Your task to perform on an android device: Open Yahoo.com Image 0: 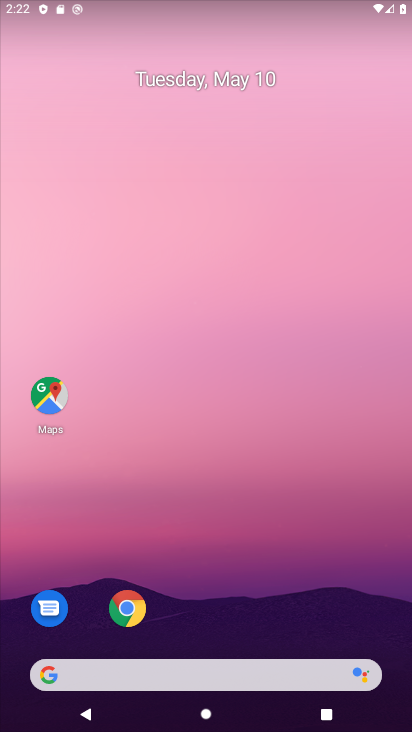
Step 0: click (126, 611)
Your task to perform on an android device: Open Yahoo.com Image 1: 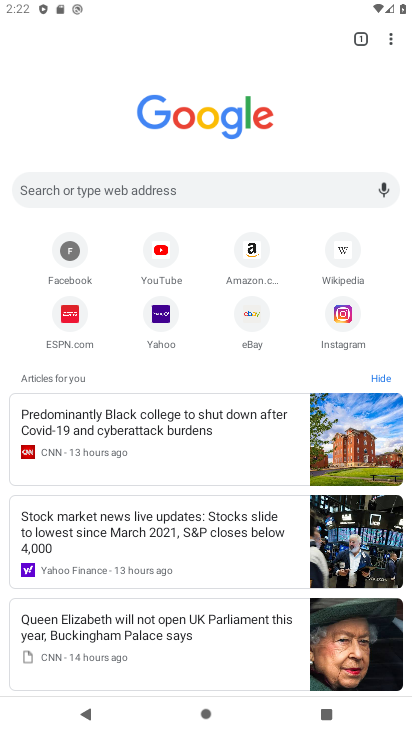
Step 1: click (105, 184)
Your task to perform on an android device: Open Yahoo.com Image 2: 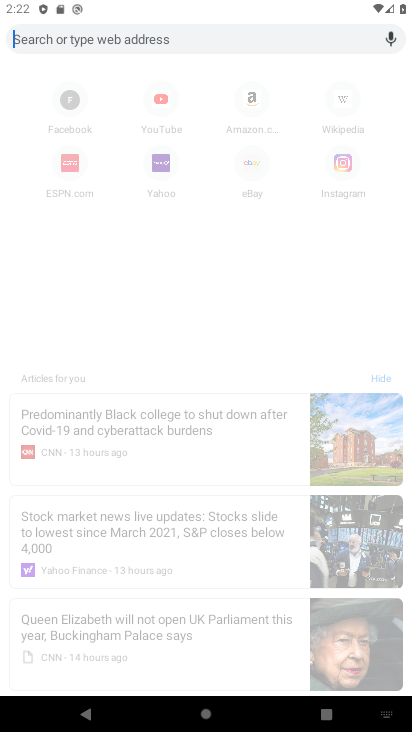
Step 2: type "yahoo.com"
Your task to perform on an android device: Open Yahoo.com Image 3: 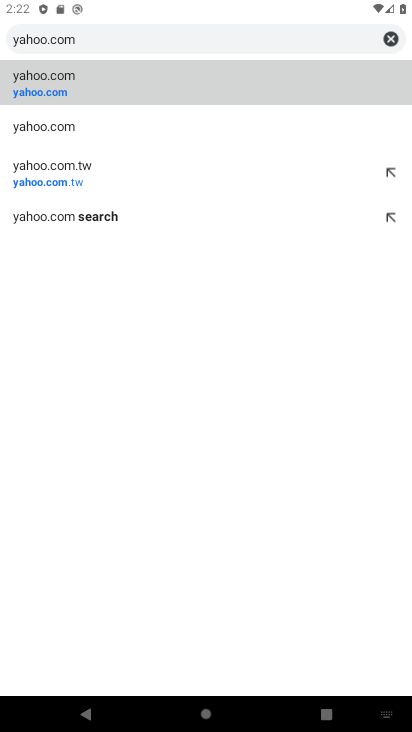
Step 3: click (43, 76)
Your task to perform on an android device: Open Yahoo.com Image 4: 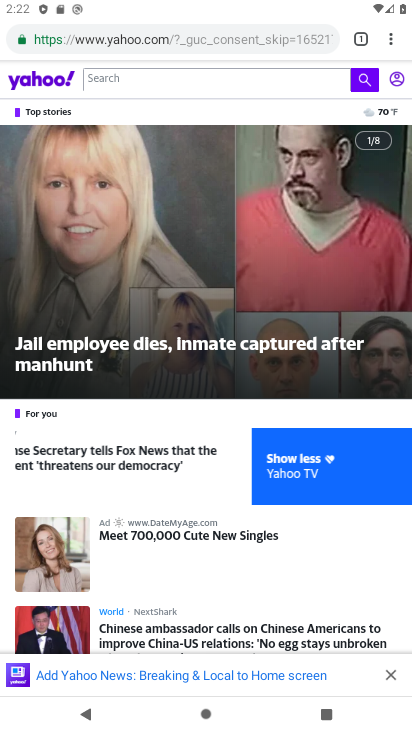
Step 4: task complete